Your task to perform on an android device: Search for flights from Sydney to Zurich Image 0: 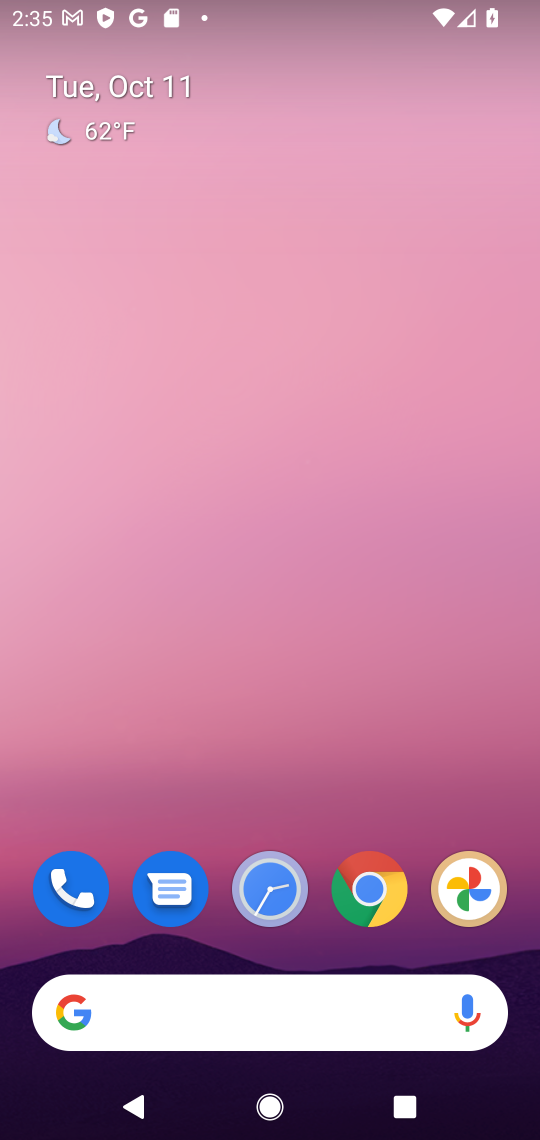
Step 0: drag from (260, 999) to (293, 375)
Your task to perform on an android device: Search for flights from Sydney to Zurich Image 1: 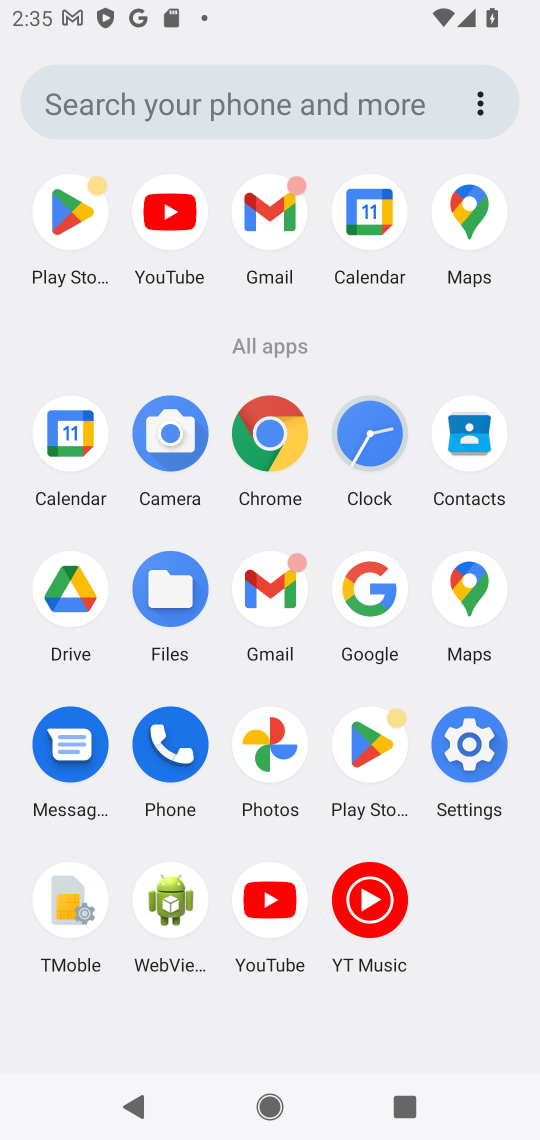
Step 1: click (365, 577)
Your task to perform on an android device: Search for flights from Sydney to Zurich Image 2: 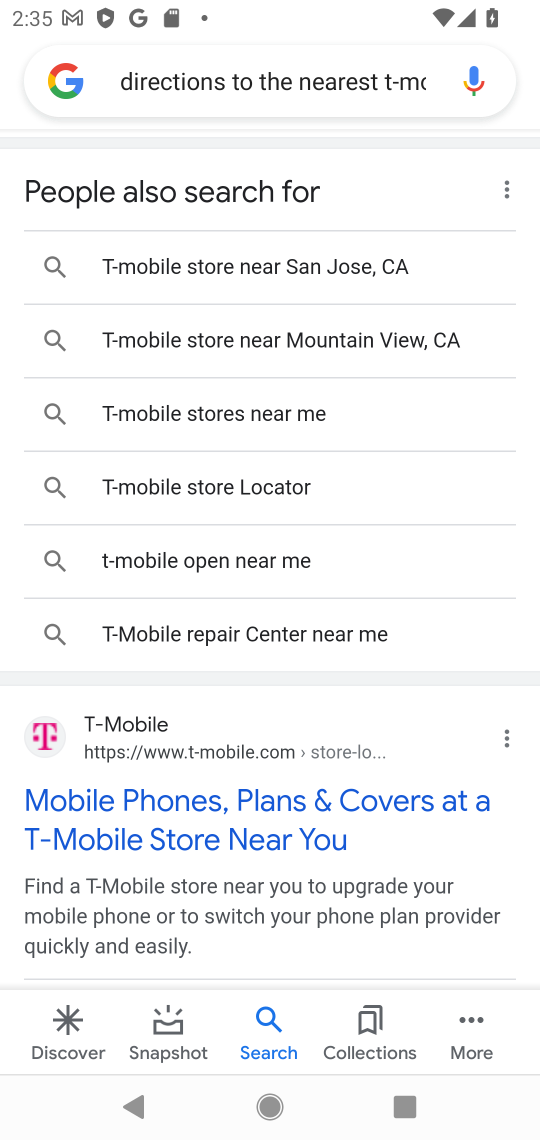
Step 2: click (216, 65)
Your task to perform on an android device: Search for flights from Sydney to Zurich Image 3: 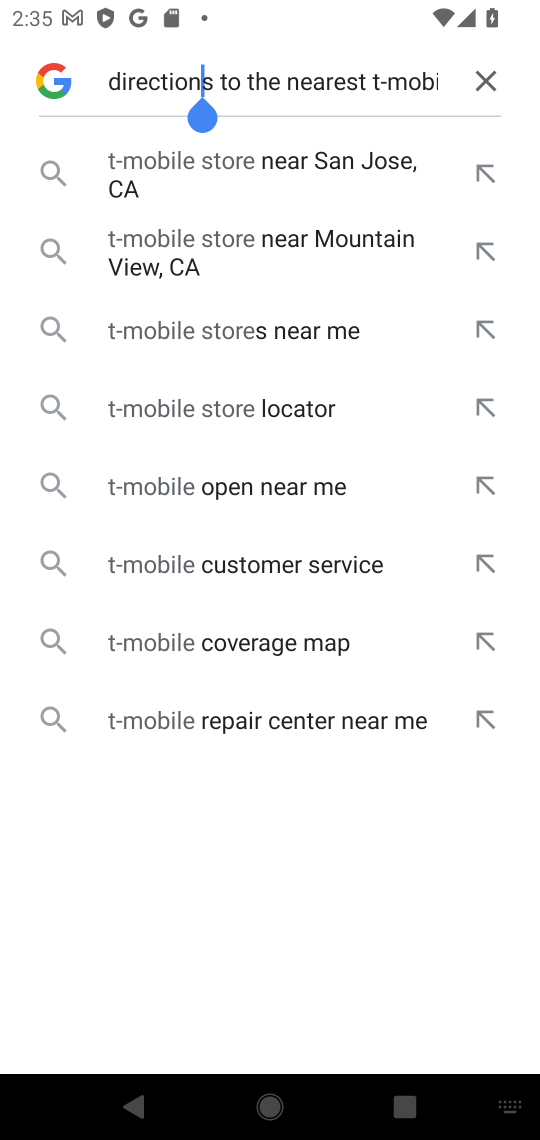
Step 3: click (483, 83)
Your task to perform on an android device: Search for flights from Sydney to Zurich Image 4: 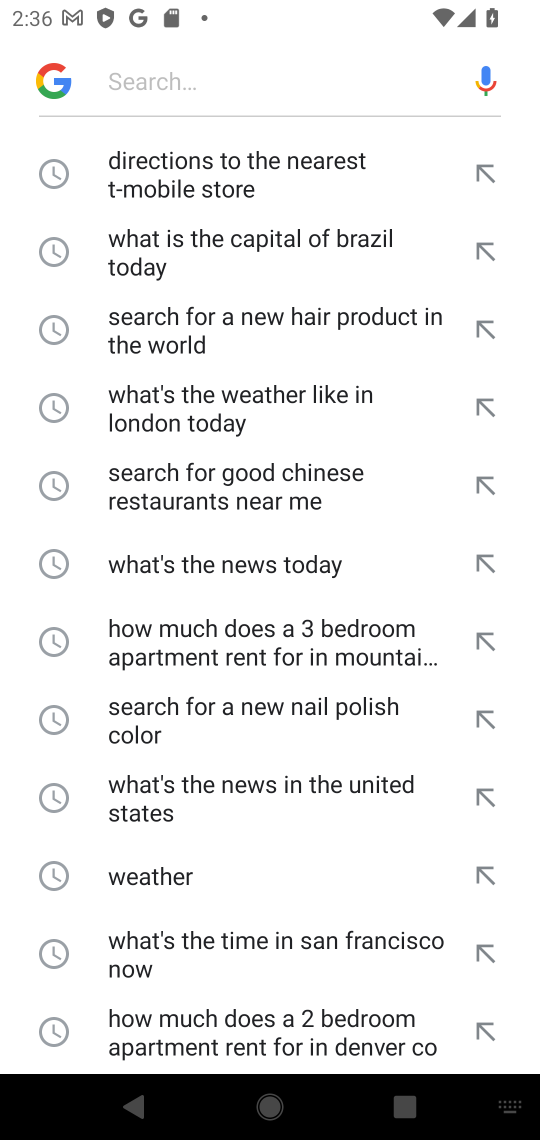
Step 4: click (310, 87)
Your task to perform on an android device: Search for flights from Sydney to Zurich Image 5: 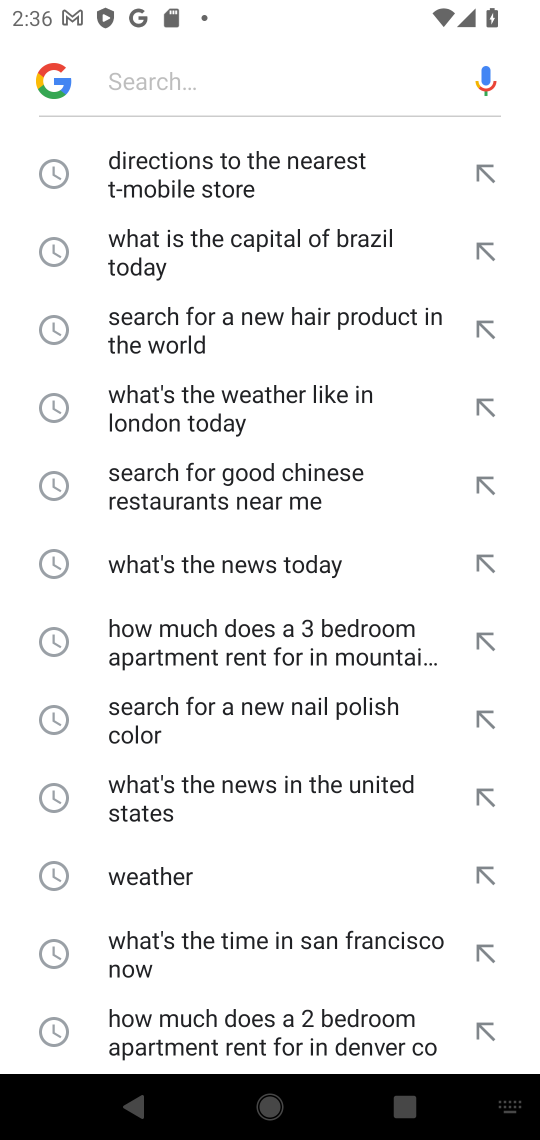
Step 5: type "Search for flights from Sydney to Zurich "
Your task to perform on an android device: Search for flights from Sydney to Zurich Image 6: 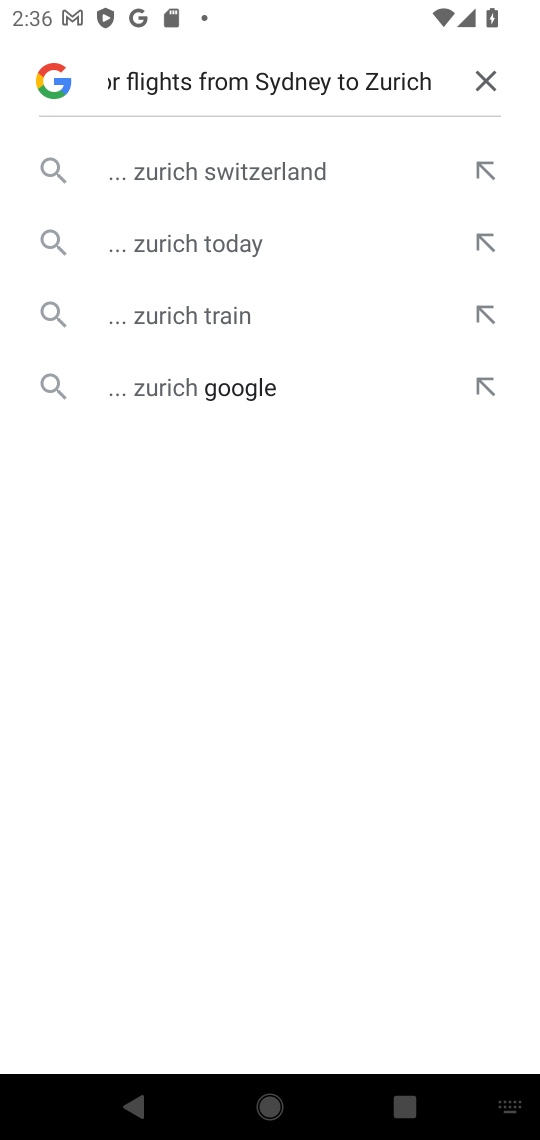
Step 6: click (167, 172)
Your task to perform on an android device: Search for flights from Sydney to Zurich Image 7: 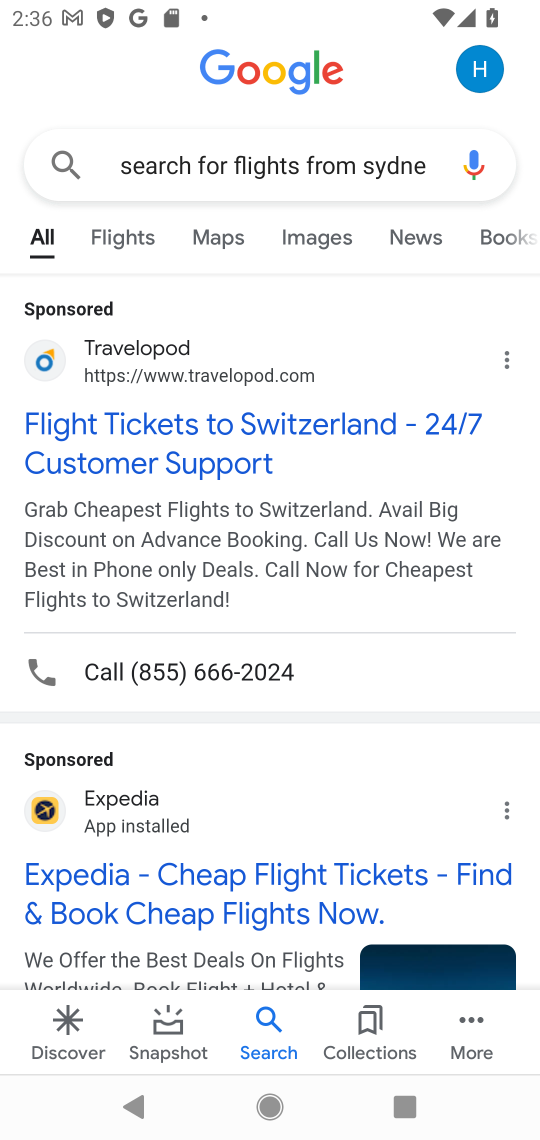
Step 7: click (199, 439)
Your task to perform on an android device: Search for flights from Sydney to Zurich Image 8: 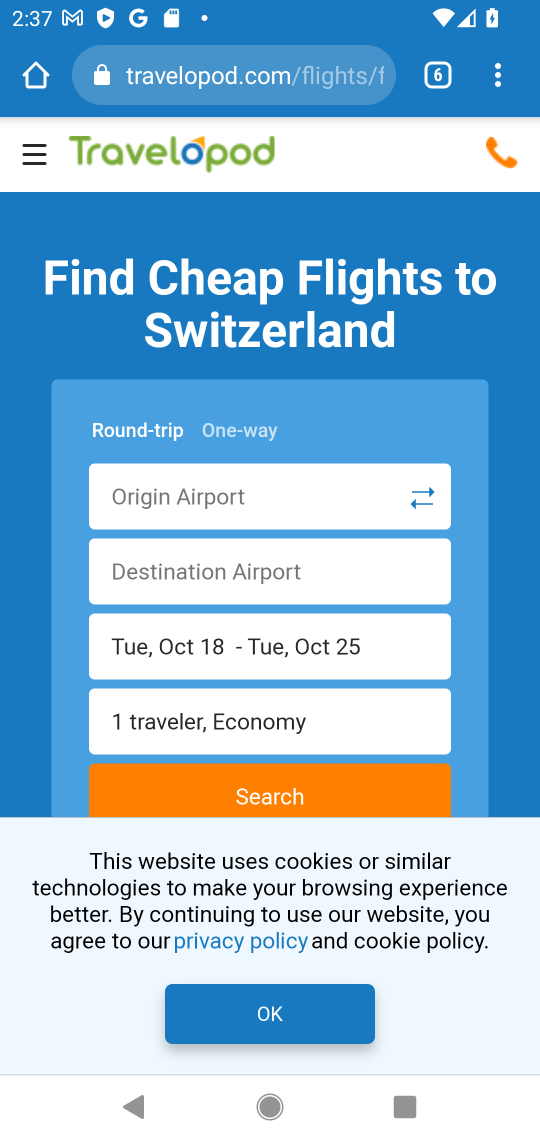
Step 8: click (273, 1009)
Your task to perform on an android device: Search for flights from Sydney to Zurich Image 9: 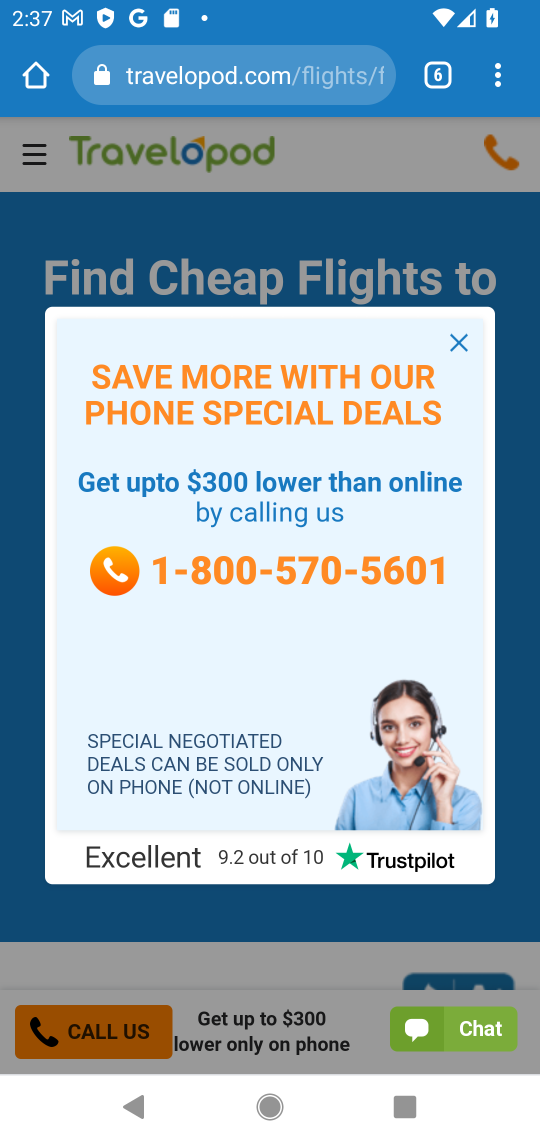
Step 9: click (453, 334)
Your task to perform on an android device: Search for flights from Sydney to Zurich Image 10: 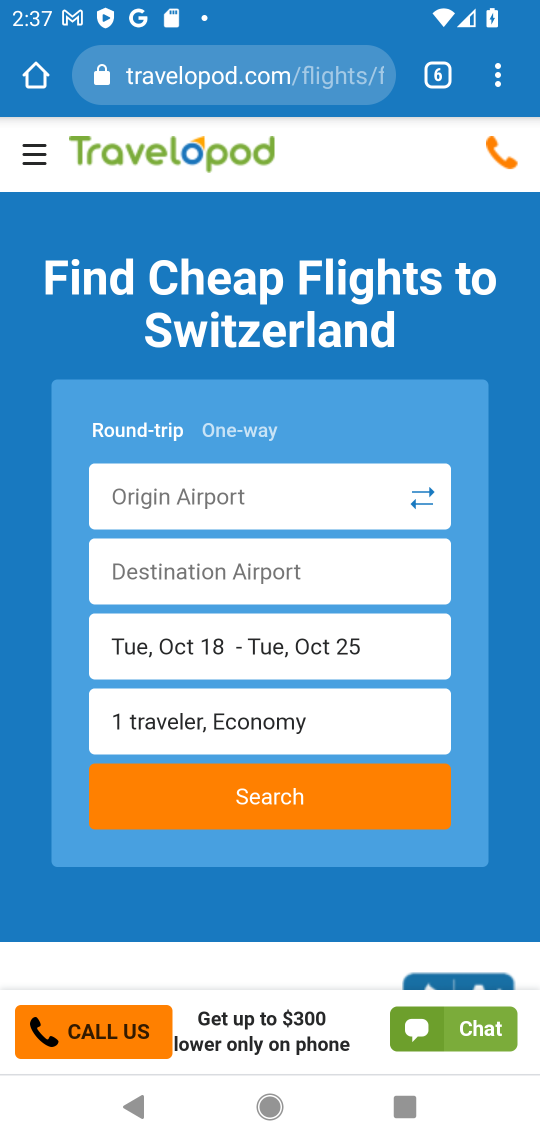
Step 10: click (355, 824)
Your task to perform on an android device: Search for flights from Sydney to Zurich Image 11: 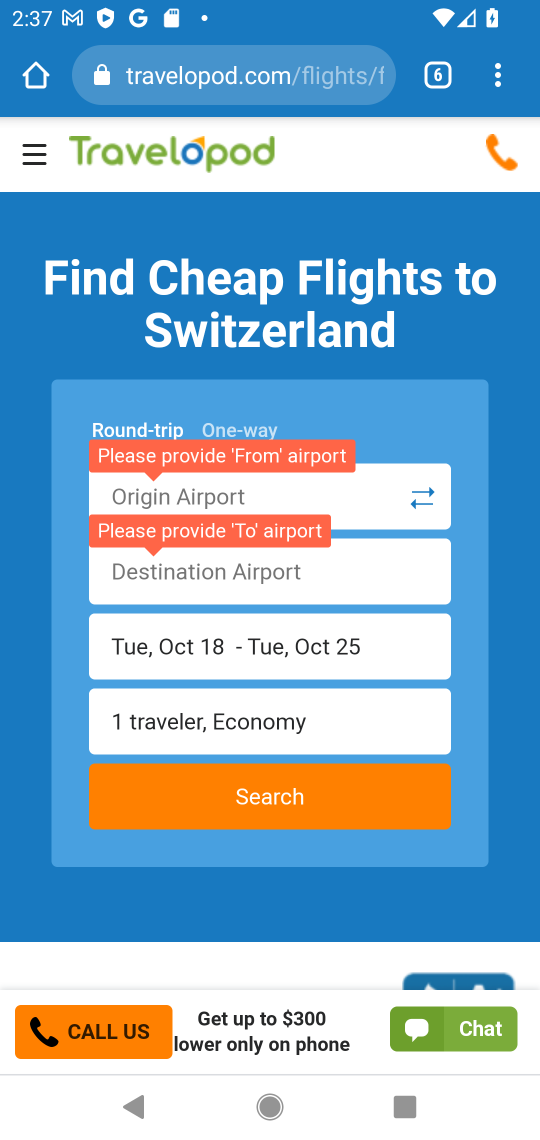
Step 11: click (365, 797)
Your task to perform on an android device: Search for flights from Sydney to Zurich Image 12: 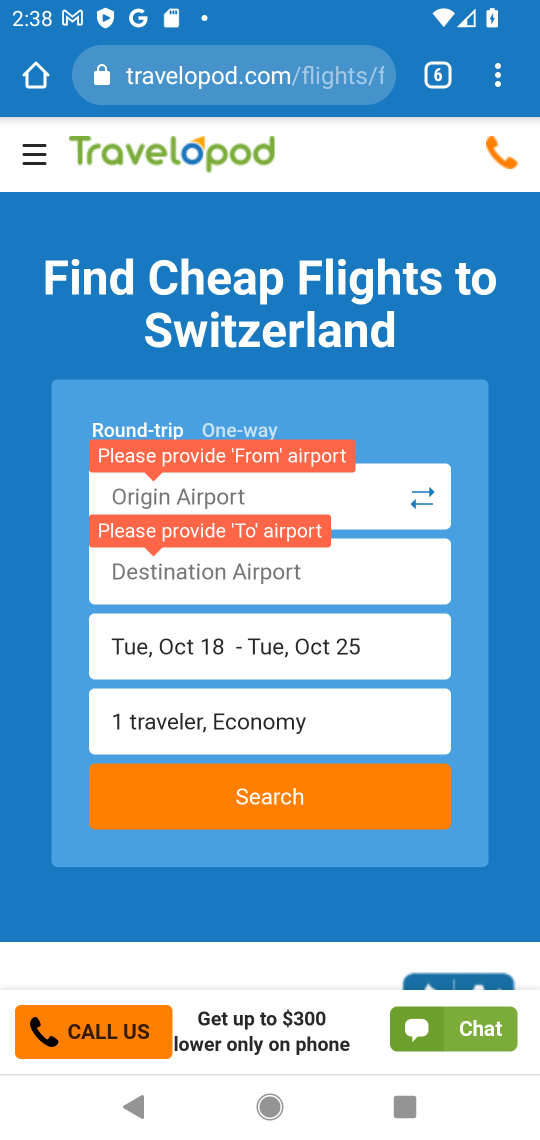
Step 12: task complete